Your task to perform on an android device: When is my next appointment? Image 0: 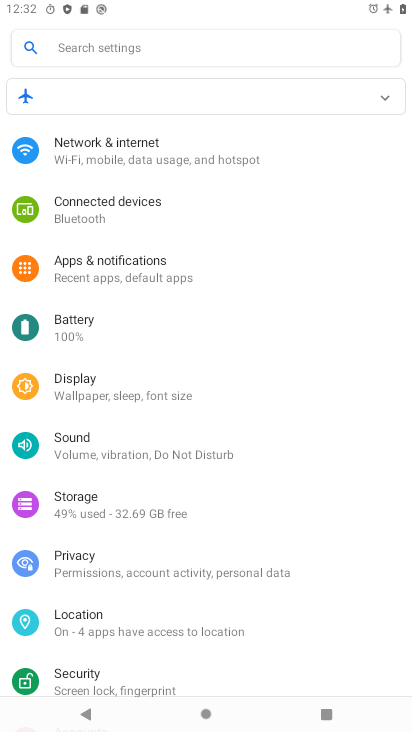
Step 0: press home button
Your task to perform on an android device: When is my next appointment? Image 1: 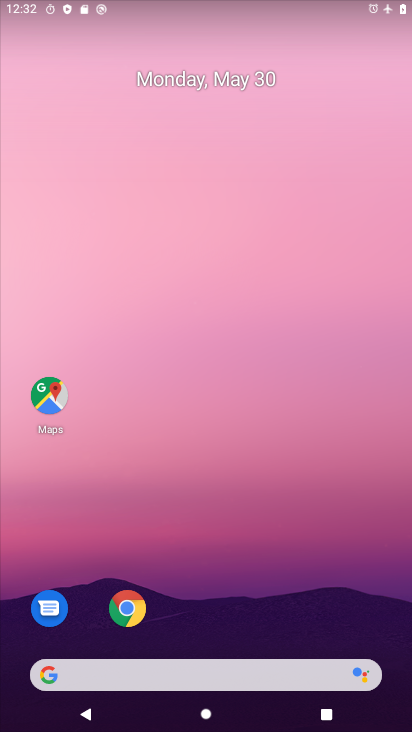
Step 1: drag from (214, 636) to (150, 60)
Your task to perform on an android device: When is my next appointment? Image 2: 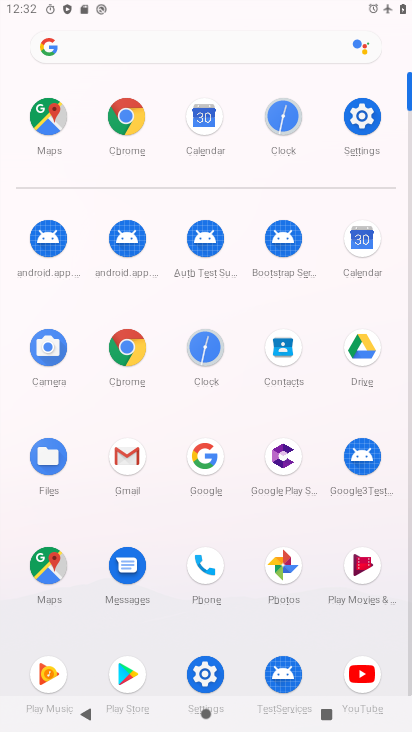
Step 2: click (368, 239)
Your task to perform on an android device: When is my next appointment? Image 3: 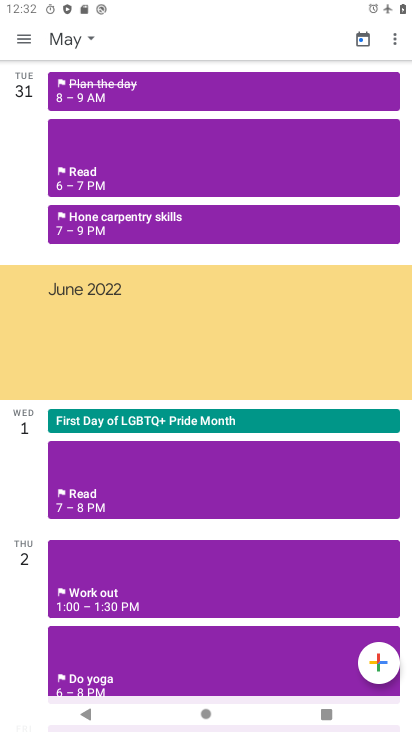
Step 3: task complete